Your task to perform on an android device: delete a single message in the gmail app Image 0: 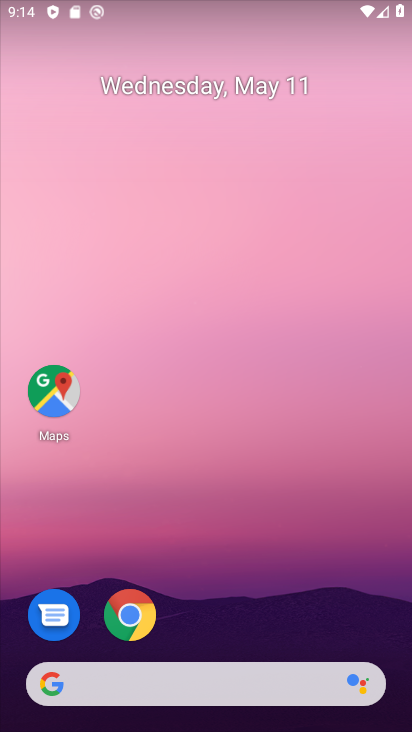
Step 0: click (163, 125)
Your task to perform on an android device: delete a single message in the gmail app Image 1: 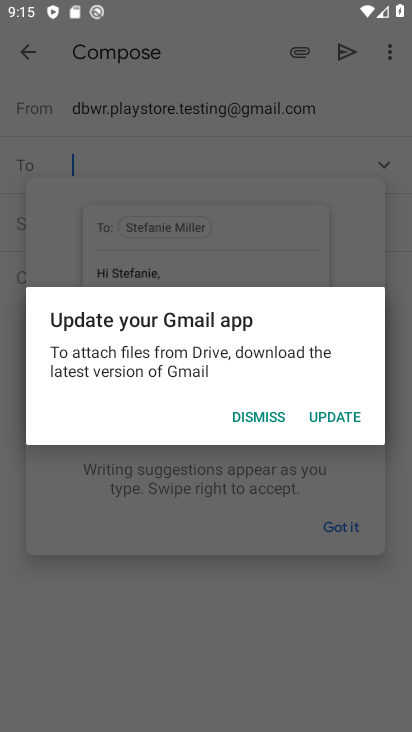
Step 1: press home button
Your task to perform on an android device: delete a single message in the gmail app Image 2: 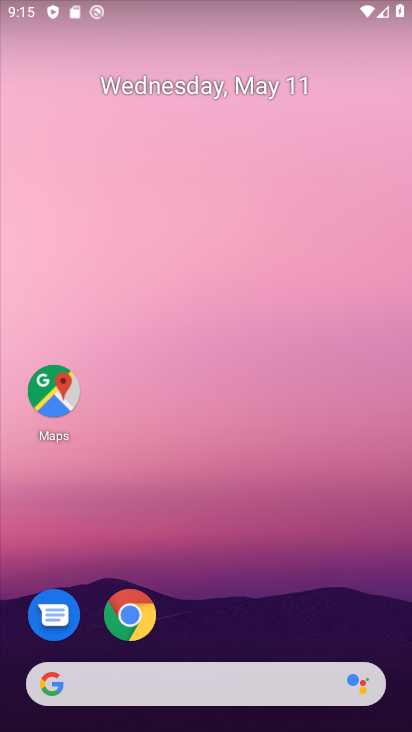
Step 2: drag from (266, 555) to (398, 238)
Your task to perform on an android device: delete a single message in the gmail app Image 3: 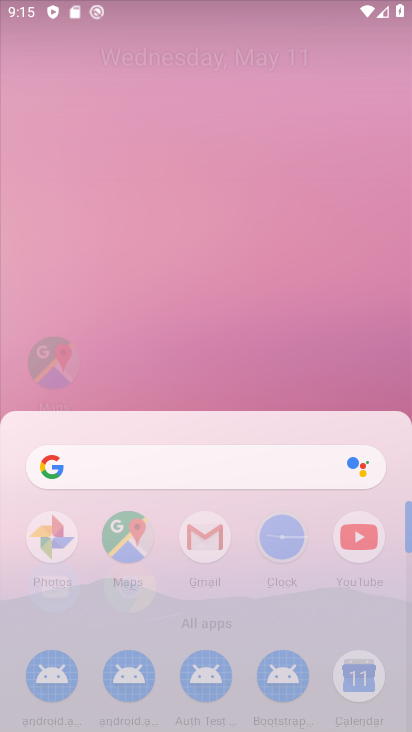
Step 3: click (212, 230)
Your task to perform on an android device: delete a single message in the gmail app Image 4: 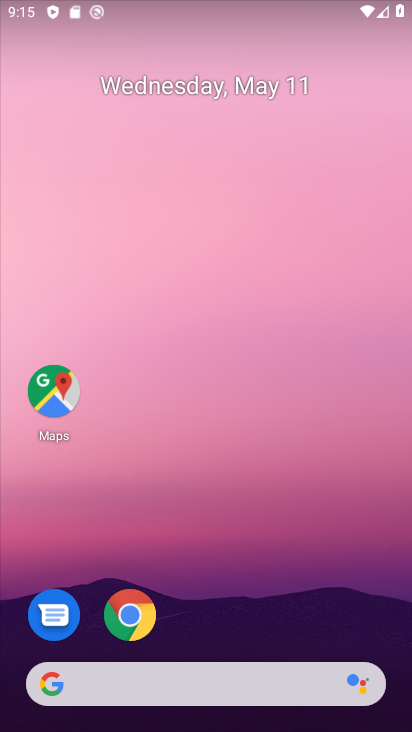
Step 4: drag from (282, 562) to (271, 25)
Your task to perform on an android device: delete a single message in the gmail app Image 5: 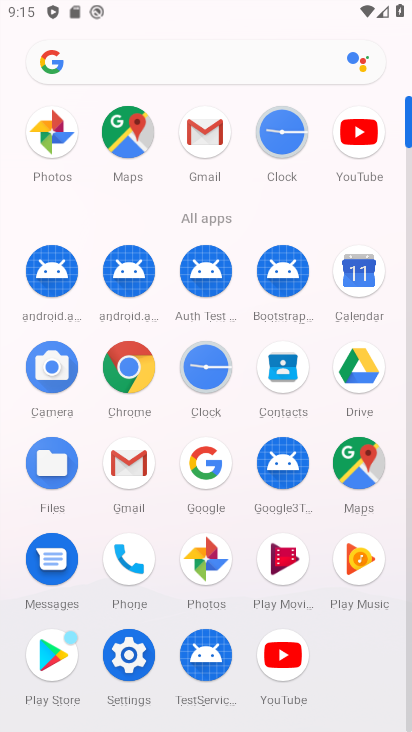
Step 5: click (199, 174)
Your task to perform on an android device: delete a single message in the gmail app Image 6: 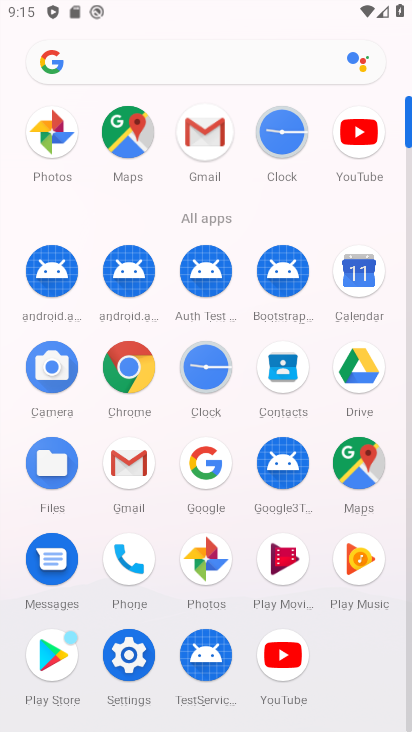
Step 6: click (209, 149)
Your task to perform on an android device: delete a single message in the gmail app Image 7: 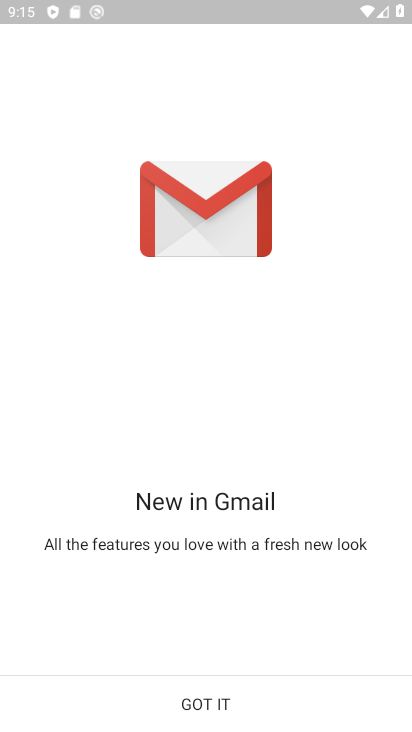
Step 7: click (194, 694)
Your task to perform on an android device: delete a single message in the gmail app Image 8: 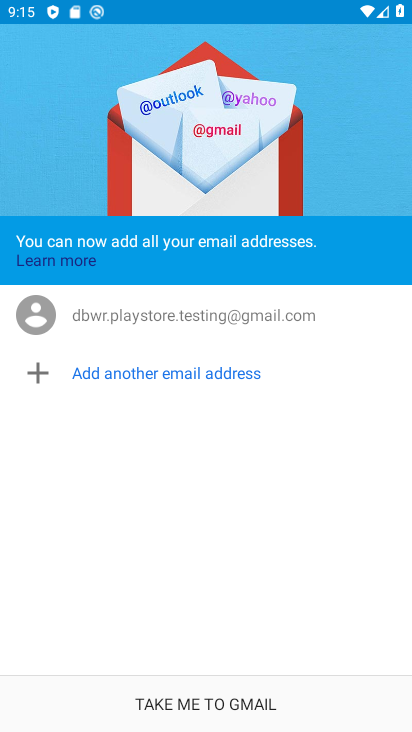
Step 8: click (287, 710)
Your task to perform on an android device: delete a single message in the gmail app Image 9: 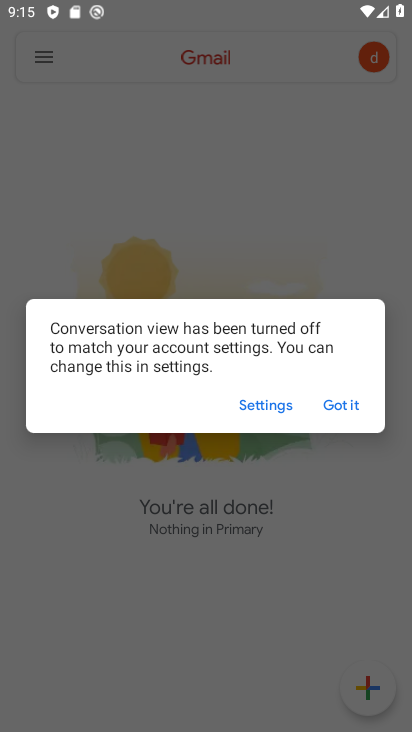
Step 9: click (341, 409)
Your task to perform on an android device: delete a single message in the gmail app Image 10: 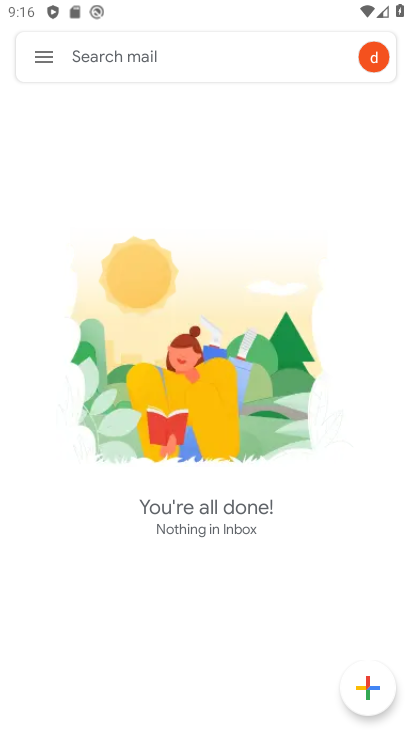
Step 10: task complete